Your task to perform on an android device: Open Google Chrome and click the shortcut for Amazon.com Image 0: 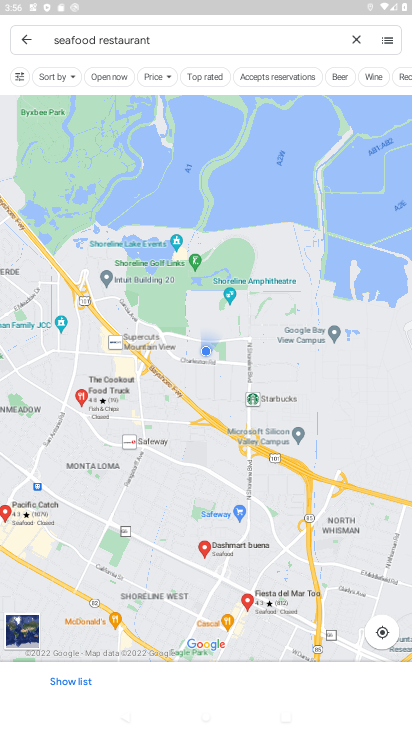
Step 0: task complete